Your task to perform on an android device: Open internet settings Image 0: 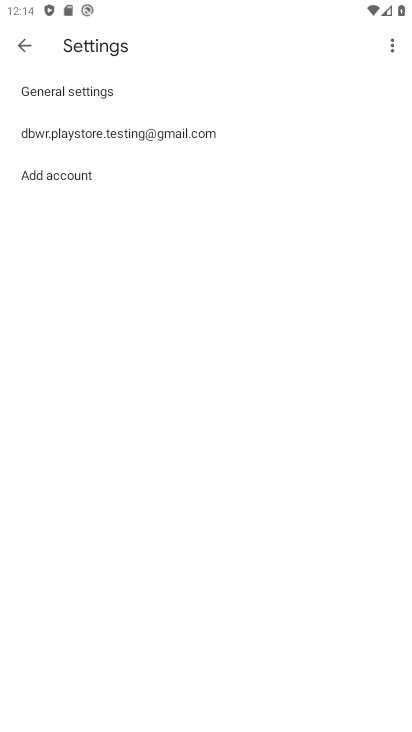
Step 0: press home button
Your task to perform on an android device: Open internet settings Image 1: 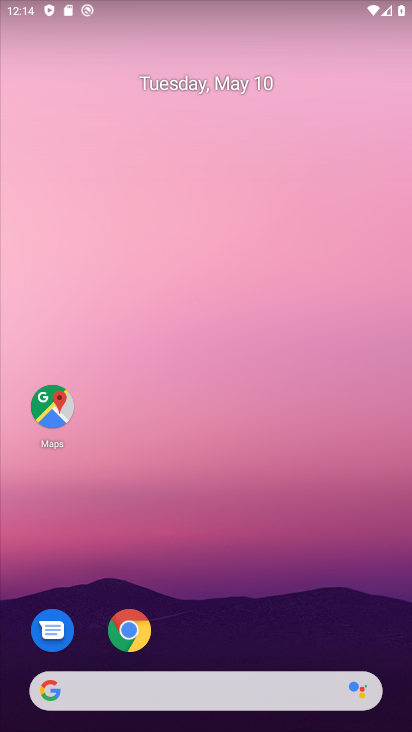
Step 1: drag from (198, 725) to (168, 210)
Your task to perform on an android device: Open internet settings Image 2: 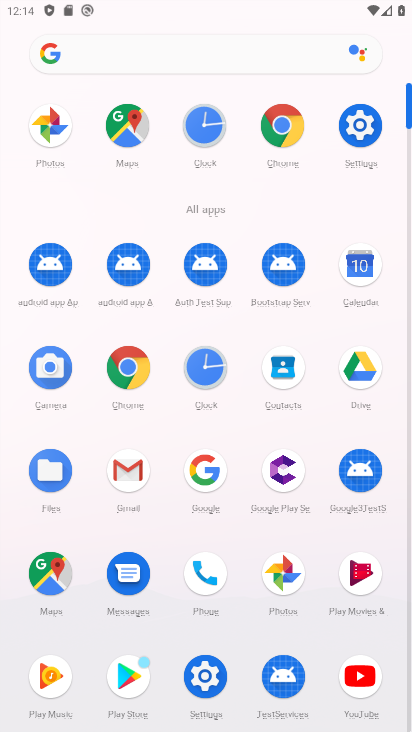
Step 2: click (358, 120)
Your task to perform on an android device: Open internet settings Image 3: 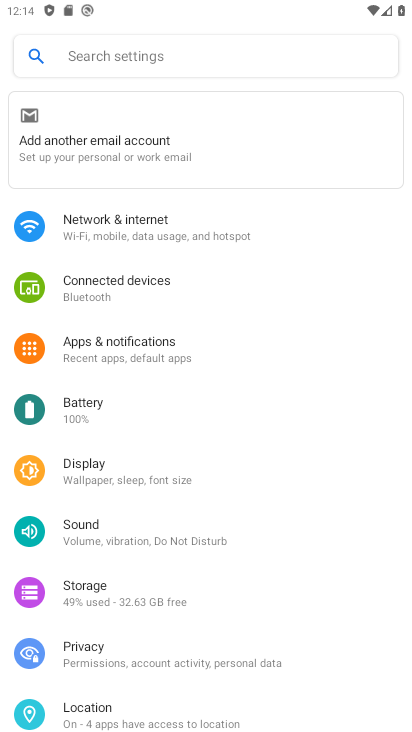
Step 3: click (93, 243)
Your task to perform on an android device: Open internet settings Image 4: 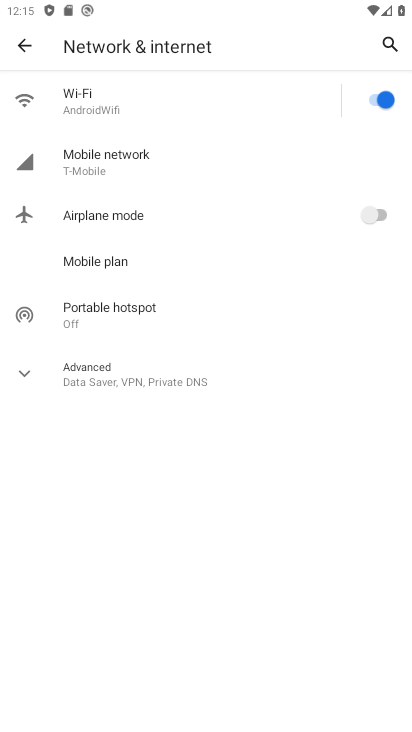
Step 4: click (98, 165)
Your task to perform on an android device: Open internet settings Image 5: 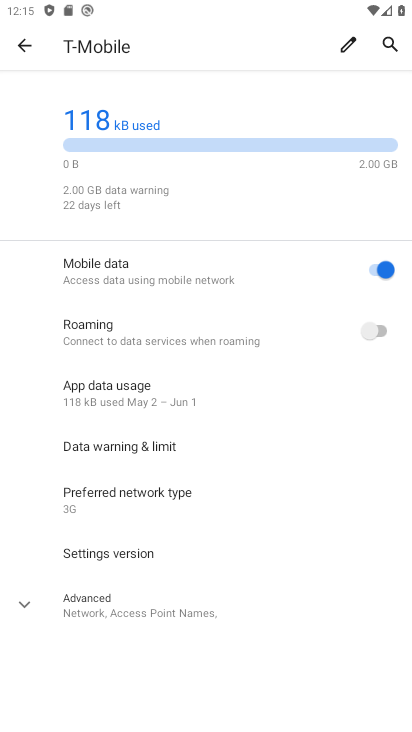
Step 5: task complete